Your task to perform on an android device: turn pop-ups off in chrome Image 0: 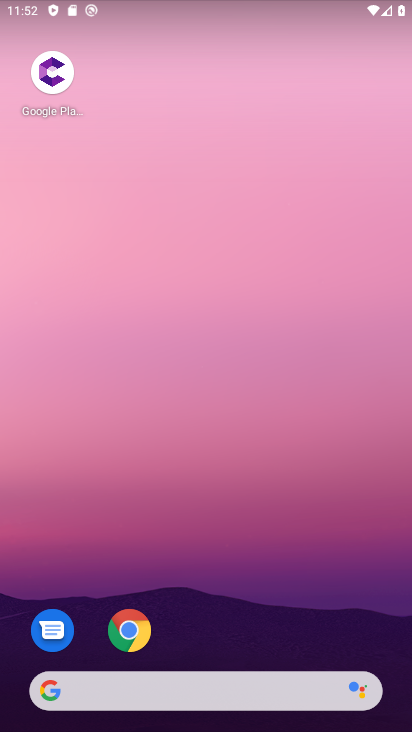
Step 0: drag from (373, 620) to (307, 149)
Your task to perform on an android device: turn pop-ups off in chrome Image 1: 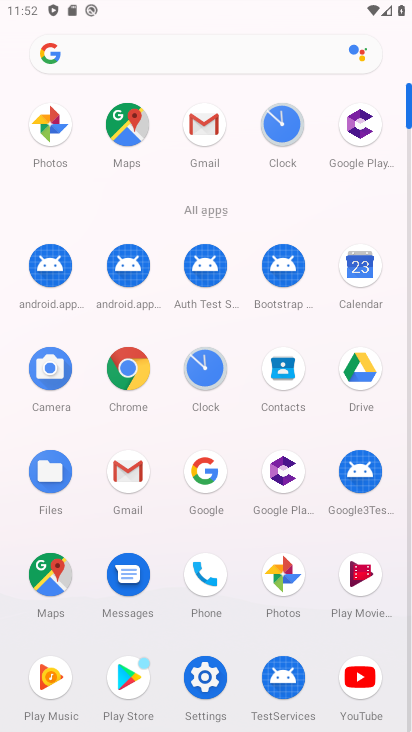
Step 1: click (125, 369)
Your task to perform on an android device: turn pop-ups off in chrome Image 2: 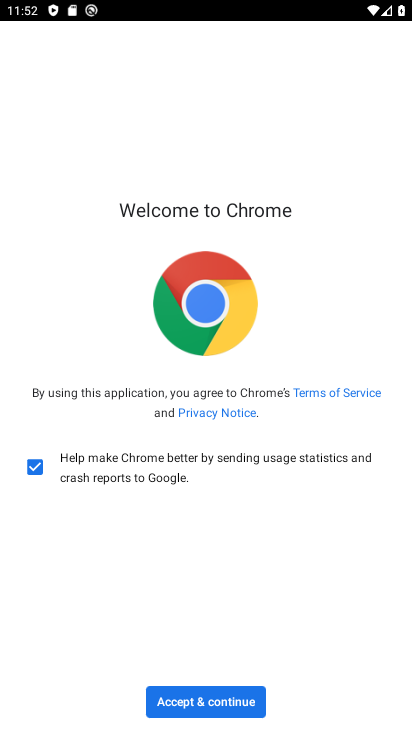
Step 2: drag from (277, 597) to (328, 342)
Your task to perform on an android device: turn pop-ups off in chrome Image 3: 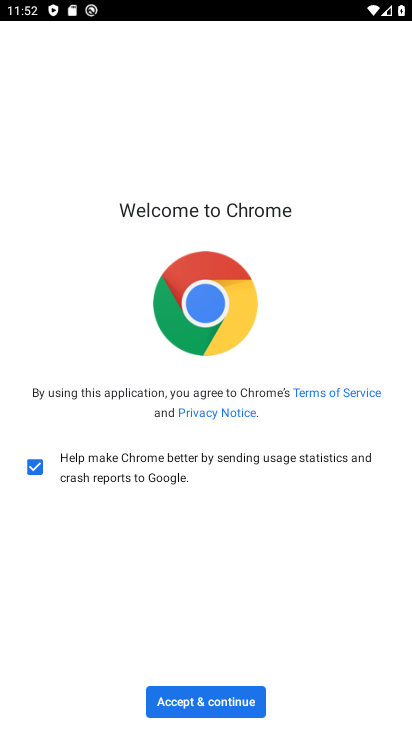
Step 3: click (208, 707)
Your task to perform on an android device: turn pop-ups off in chrome Image 4: 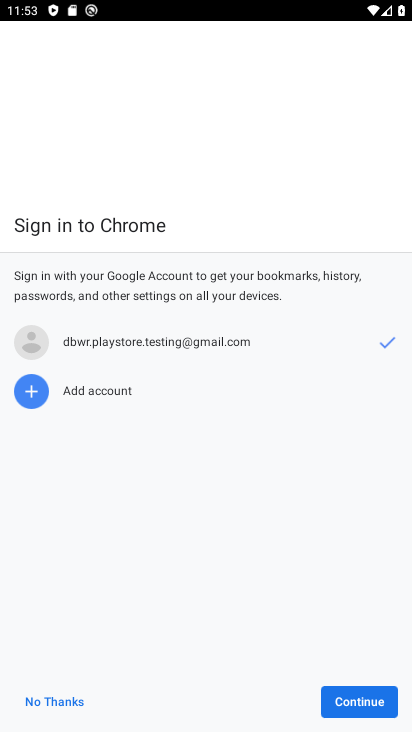
Step 4: click (363, 713)
Your task to perform on an android device: turn pop-ups off in chrome Image 5: 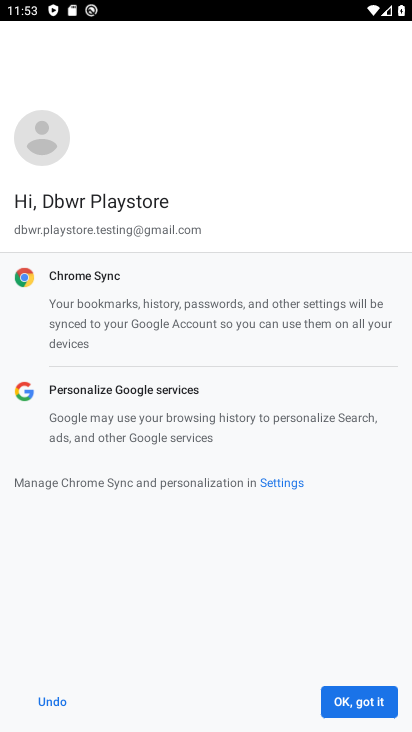
Step 5: click (352, 695)
Your task to perform on an android device: turn pop-ups off in chrome Image 6: 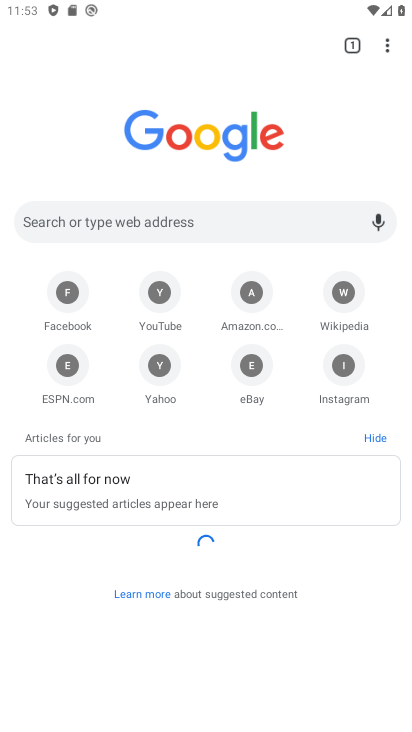
Step 6: drag from (396, 42) to (247, 389)
Your task to perform on an android device: turn pop-ups off in chrome Image 7: 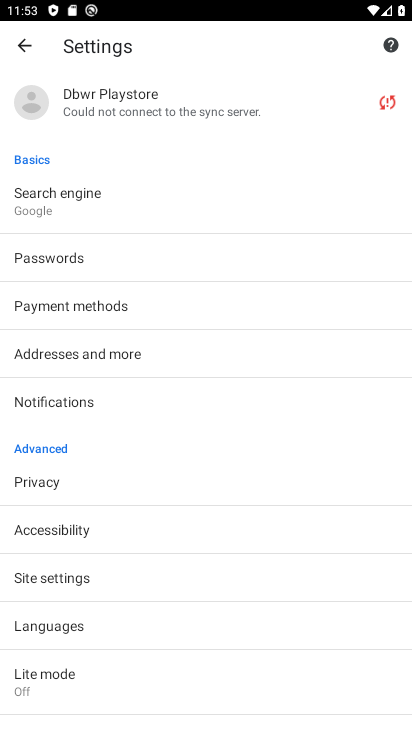
Step 7: drag from (203, 660) to (243, 249)
Your task to perform on an android device: turn pop-ups off in chrome Image 8: 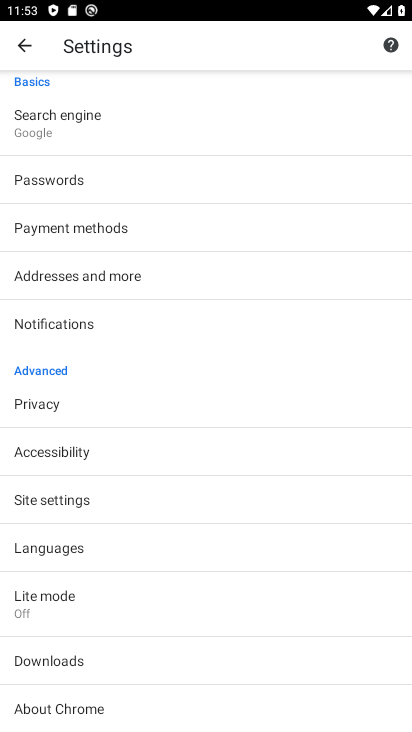
Step 8: drag from (112, 638) to (225, 371)
Your task to perform on an android device: turn pop-ups off in chrome Image 9: 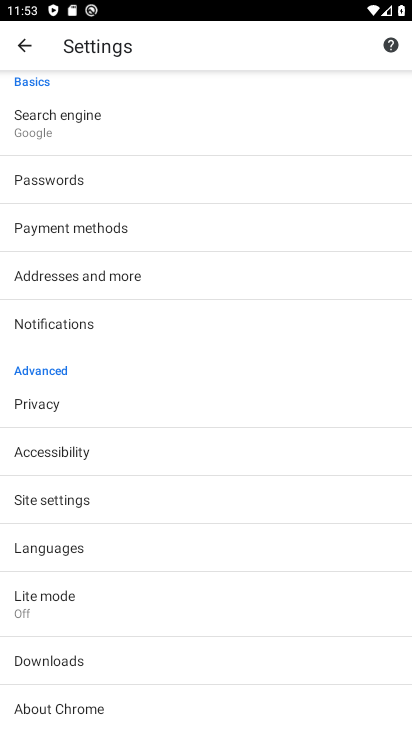
Step 9: click (84, 500)
Your task to perform on an android device: turn pop-ups off in chrome Image 10: 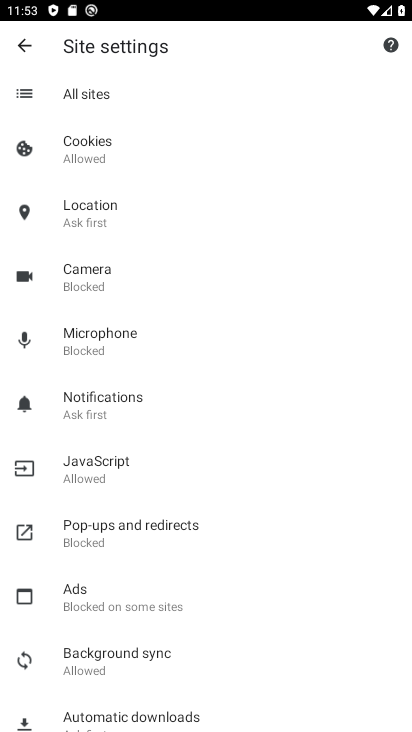
Step 10: click (154, 524)
Your task to perform on an android device: turn pop-ups off in chrome Image 11: 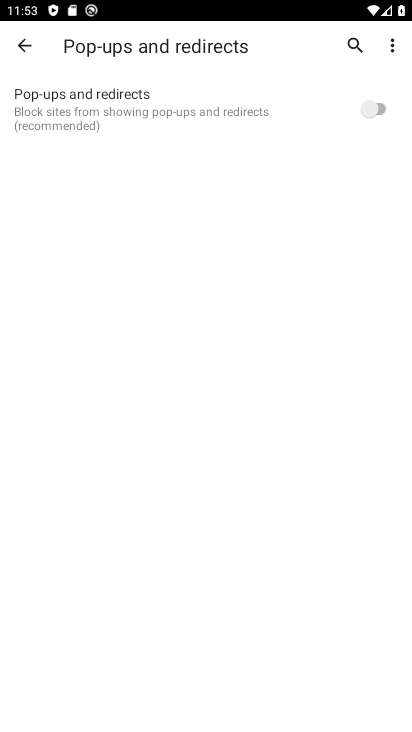
Step 11: click (382, 110)
Your task to perform on an android device: turn pop-ups off in chrome Image 12: 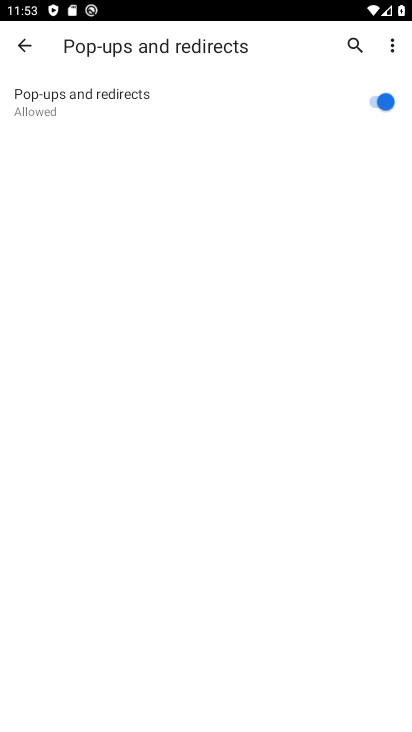
Step 12: task complete